Your task to perform on an android device: Search for sushi restaurants on Maps Image 0: 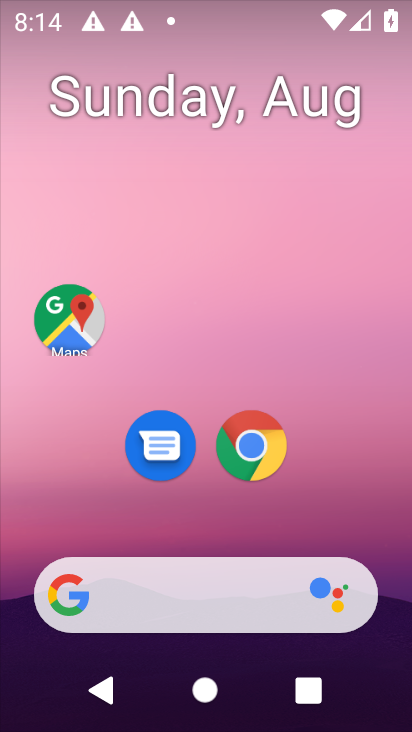
Step 0: click (68, 311)
Your task to perform on an android device: Search for sushi restaurants on Maps Image 1: 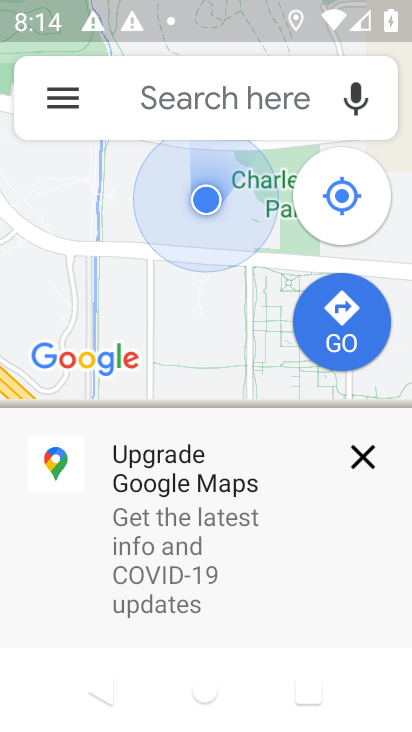
Step 1: click (362, 457)
Your task to perform on an android device: Search for sushi restaurants on Maps Image 2: 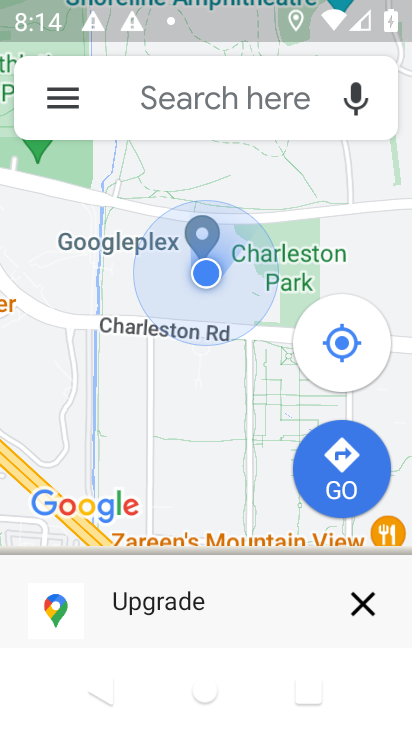
Step 2: click (167, 91)
Your task to perform on an android device: Search for sushi restaurants on Maps Image 3: 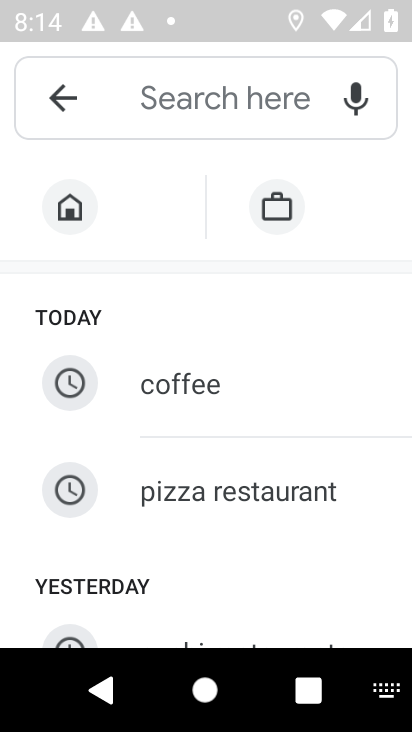
Step 3: drag from (191, 580) to (186, 152)
Your task to perform on an android device: Search for sushi restaurants on Maps Image 4: 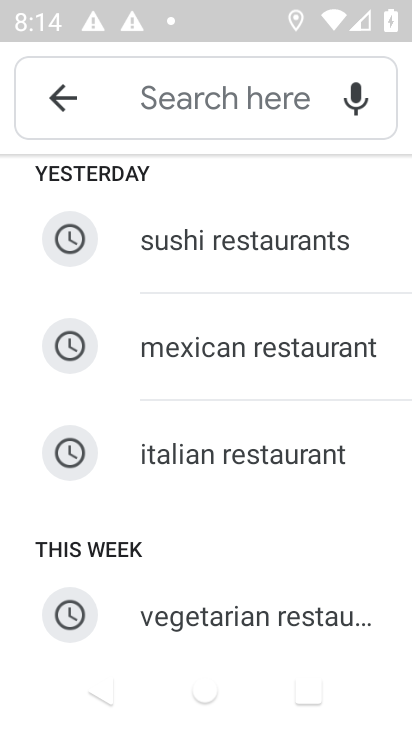
Step 4: click (188, 238)
Your task to perform on an android device: Search for sushi restaurants on Maps Image 5: 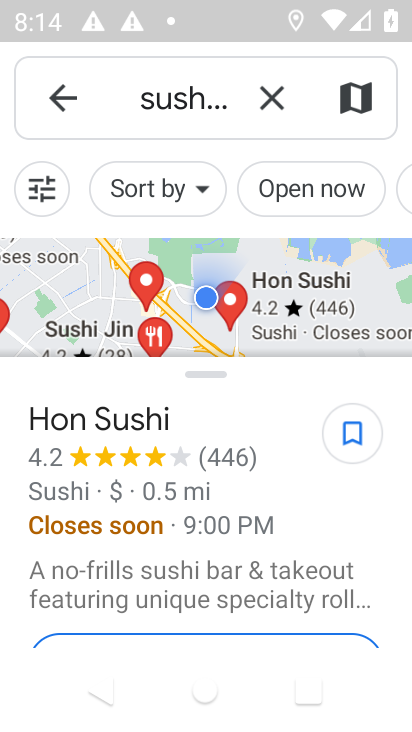
Step 5: task complete